Your task to perform on an android device: Show me productivity apps on the Play Store Image 0: 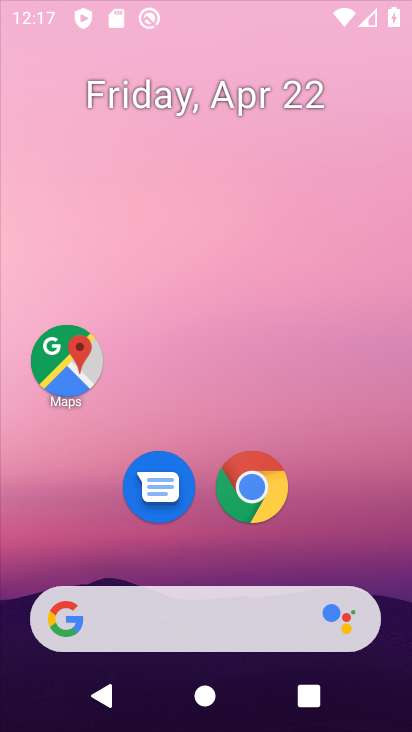
Step 0: click (281, 43)
Your task to perform on an android device: Show me productivity apps on the Play Store Image 1: 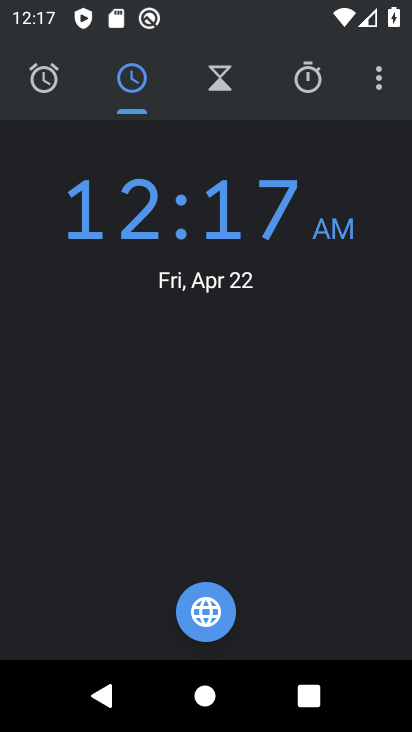
Step 1: press home button
Your task to perform on an android device: Show me productivity apps on the Play Store Image 2: 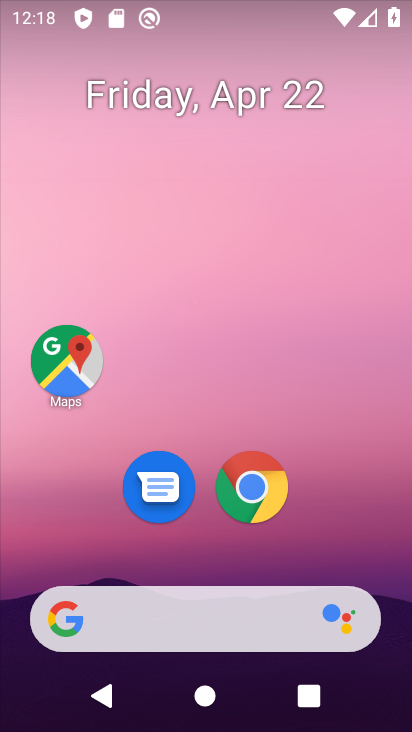
Step 2: drag from (324, 538) to (319, 19)
Your task to perform on an android device: Show me productivity apps on the Play Store Image 3: 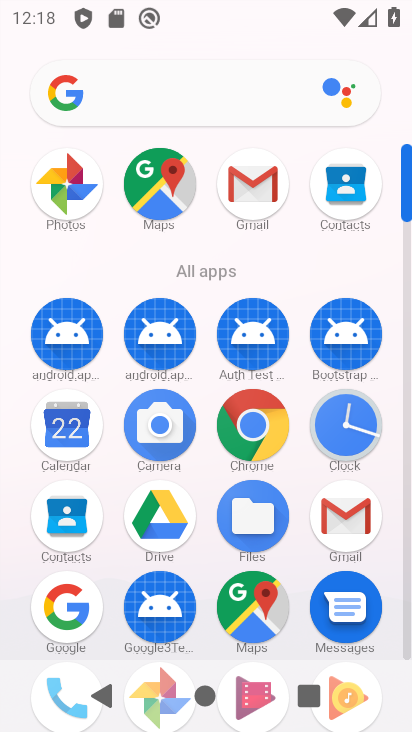
Step 3: drag from (383, 548) to (344, 202)
Your task to perform on an android device: Show me productivity apps on the Play Store Image 4: 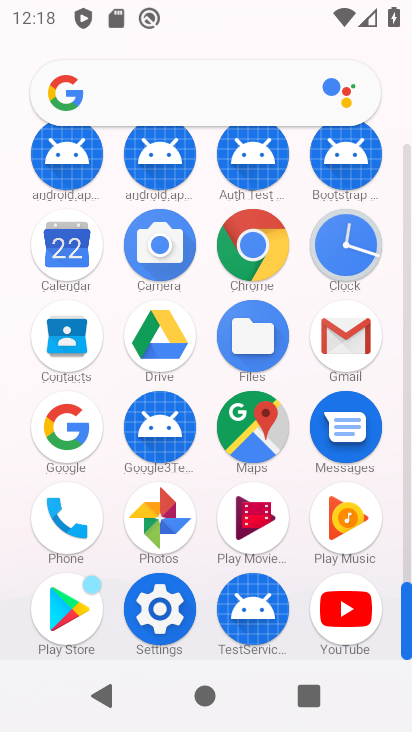
Step 4: click (40, 614)
Your task to perform on an android device: Show me productivity apps on the Play Store Image 5: 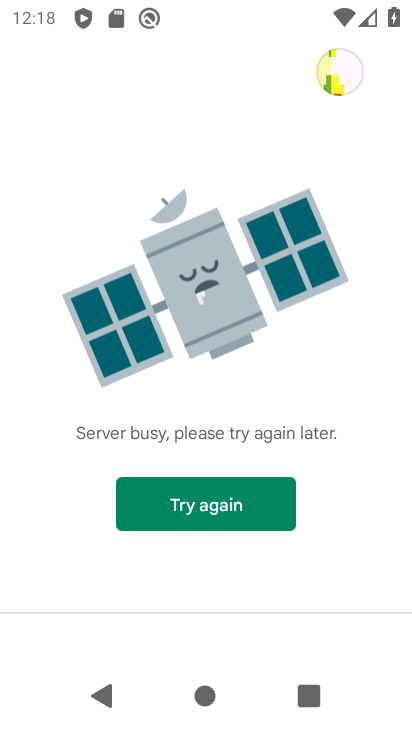
Step 5: click (173, 512)
Your task to perform on an android device: Show me productivity apps on the Play Store Image 6: 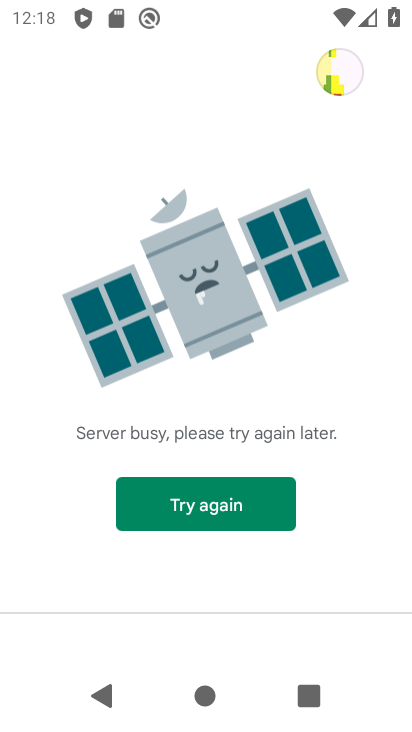
Step 6: click (153, 521)
Your task to perform on an android device: Show me productivity apps on the Play Store Image 7: 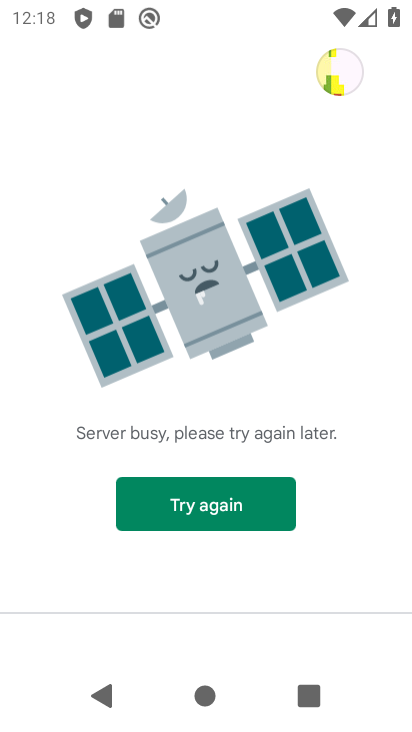
Step 7: task complete